Your task to perform on an android device: open app "Spotify: Music and Podcasts" (install if not already installed) Image 0: 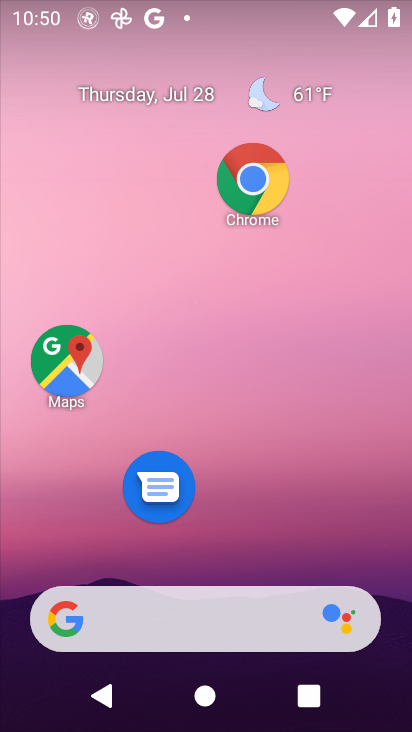
Step 0: drag from (273, 649) to (324, 264)
Your task to perform on an android device: open app "Spotify: Music and Podcasts" (install if not already installed) Image 1: 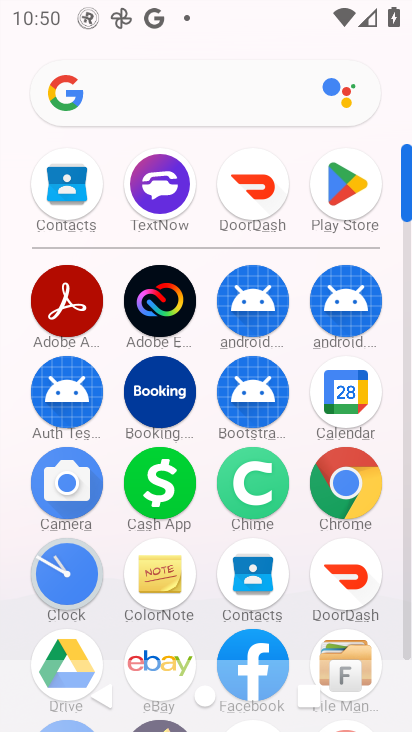
Step 1: click (352, 183)
Your task to perform on an android device: open app "Spotify: Music and Podcasts" (install if not already installed) Image 2: 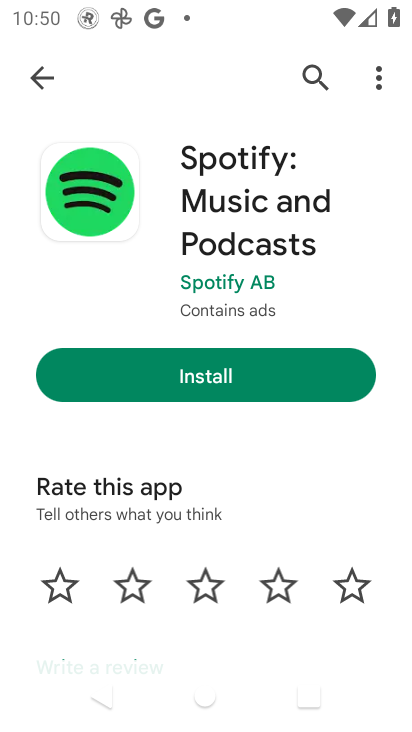
Step 2: click (51, 88)
Your task to perform on an android device: open app "Spotify: Music and Podcasts" (install if not already installed) Image 3: 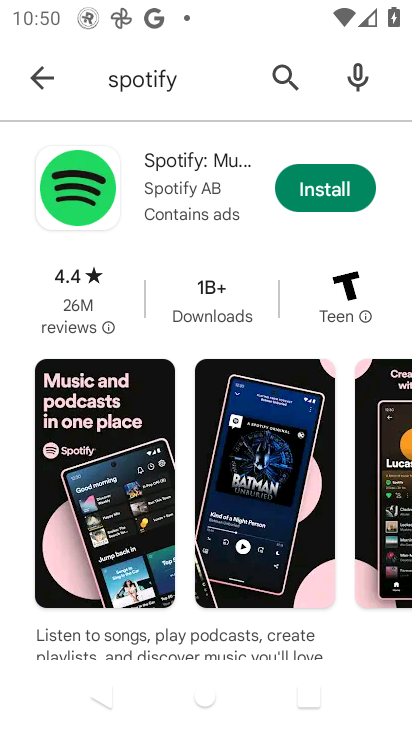
Step 3: click (45, 87)
Your task to perform on an android device: open app "Spotify: Music and Podcasts" (install if not already installed) Image 4: 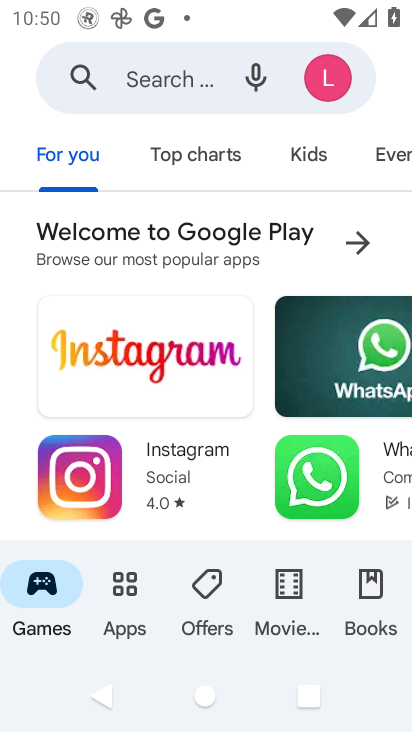
Step 4: click (154, 83)
Your task to perform on an android device: open app "Spotify: Music and Podcasts" (install if not already installed) Image 5: 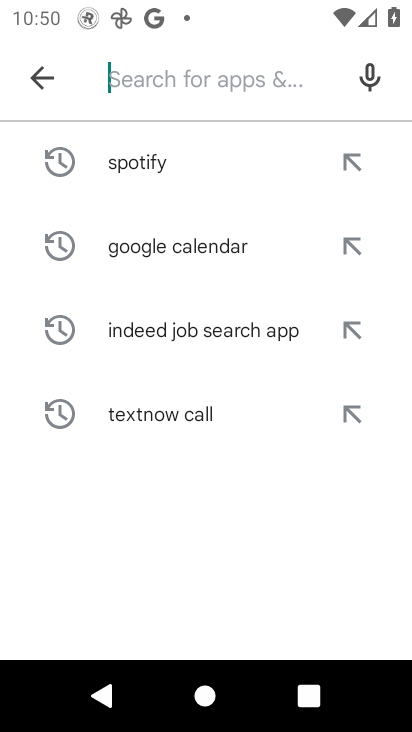
Step 5: click (152, 151)
Your task to perform on an android device: open app "Spotify: Music and Podcasts" (install if not already installed) Image 6: 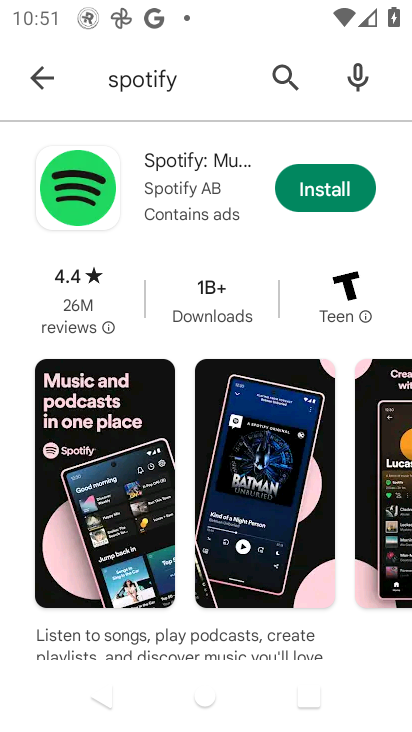
Step 6: click (187, 65)
Your task to perform on an android device: open app "Spotify: Music and Podcasts" (install if not already installed) Image 7: 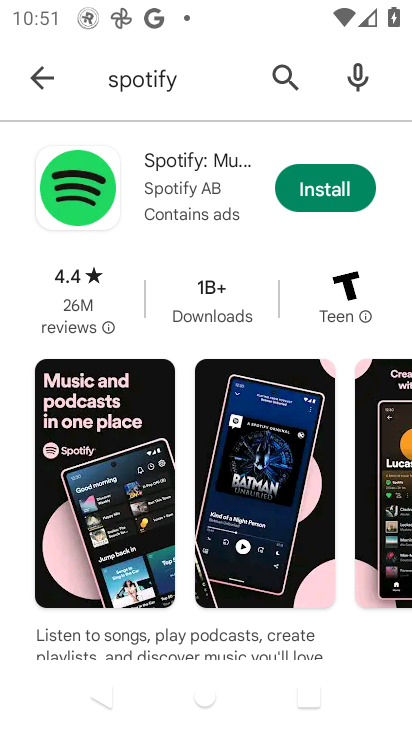
Step 7: click (187, 65)
Your task to perform on an android device: open app "Spotify: Music and Podcasts" (install if not already installed) Image 8: 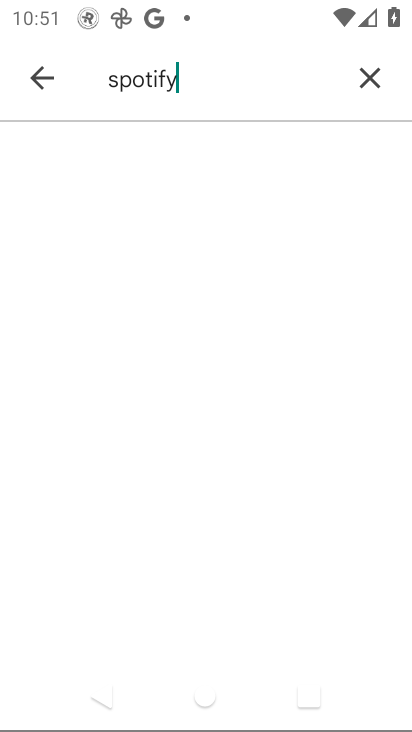
Step 8: click (187, 66)
Your task to perform on an android device: open app "Spotify: Music and Podcasts" (install if not already installed) Image 9: 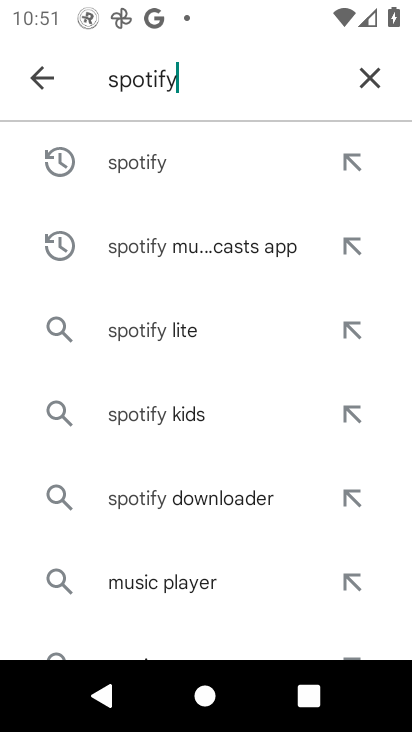
Step 9: type ": Music and Podcasts"
Your task to perform on an android device: open app "Spotify: Music and Podcasts" (install if not already installed) Image 10: 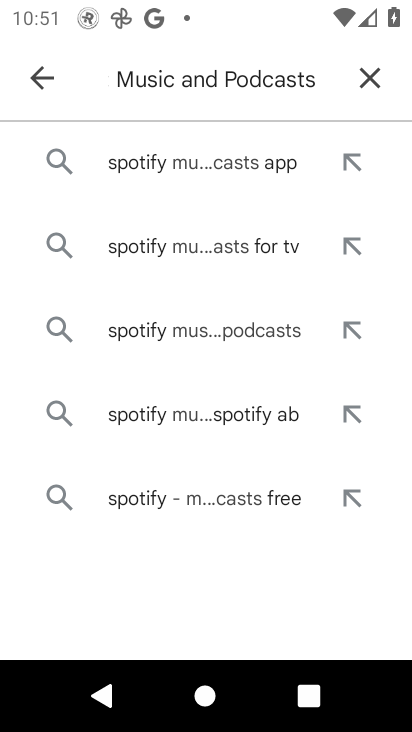
Step 10: click (258, 159)
Your task to perform on an android device: open app "Spotify: Music and Podcasts" (install if not already installed) Image 11: 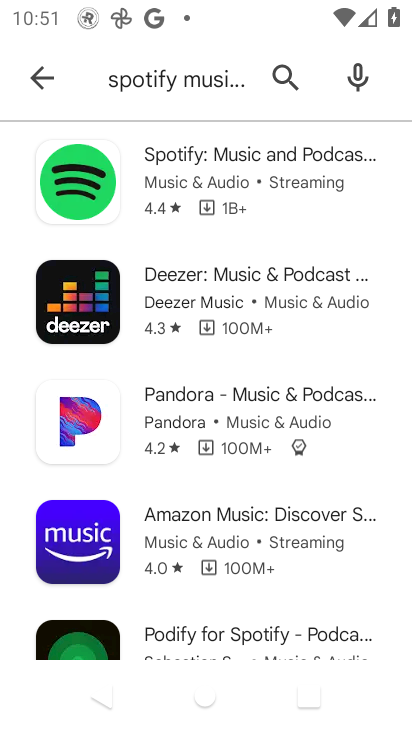
Step 11: click (222, 167)
Your task to perform on an android device: open app "Spotify: Music and Podcasts" (install if not already installed) Image 12: 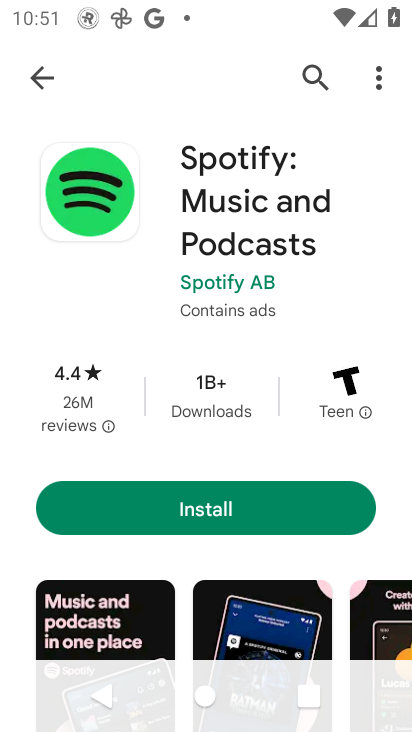
Step 12: click (224, 511)
Your task to perform on an android device: open app "Spotify: Music and Podcasts" (install if not already installed) Image 13: 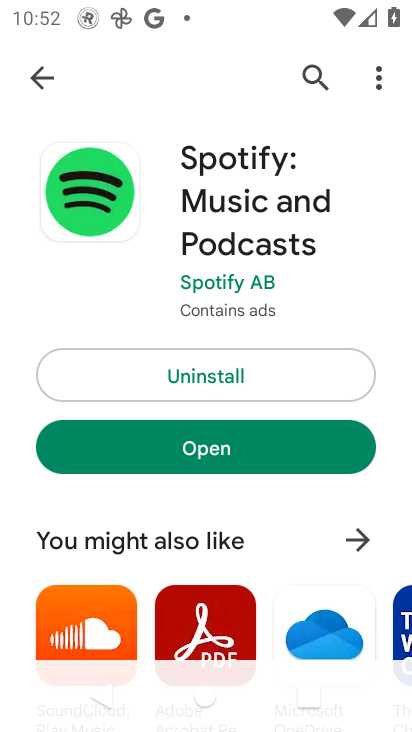
Step 13: click (237, 435)
Your task to perform on an android device: open app "Spotify: Music and Podcasts" (install if not already installed) Image 14: 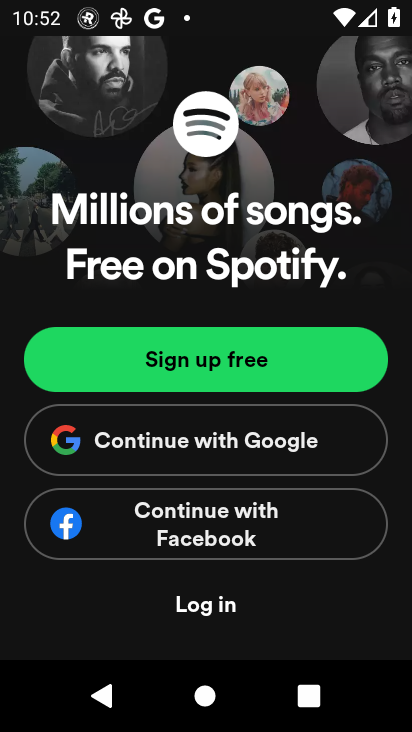
Step 14: task complete